Your task to perform on an android device: See recent photos Image 0: 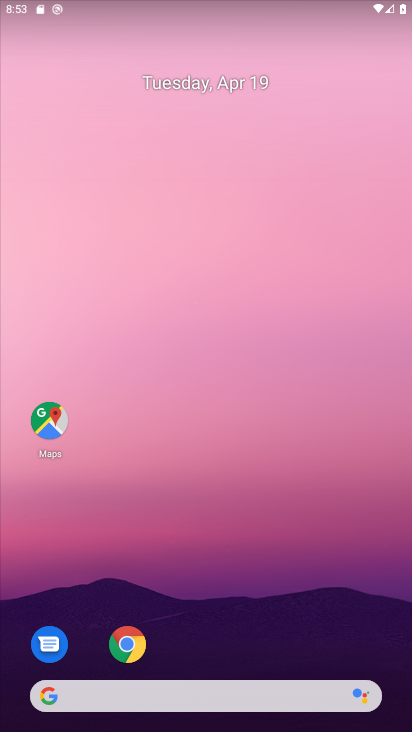
Step 0: drag from (214, 272) to (214, 124)
Your task to perform on an android device: See recent photos Image 1: 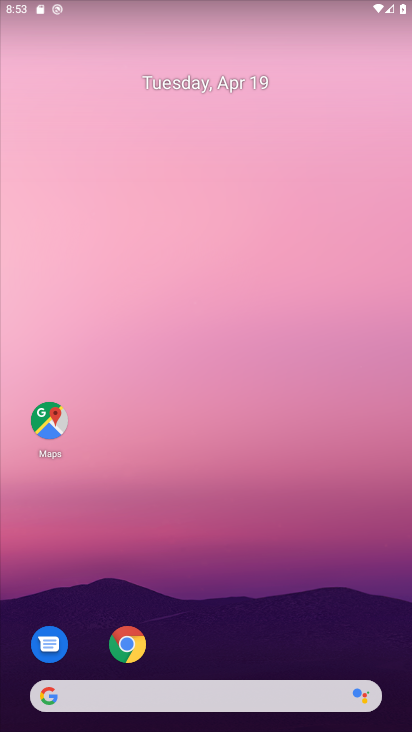
Step 1: drag from (218, 635) to (223, 180)
Your task to perform on an android device: See recent photos Image 2: 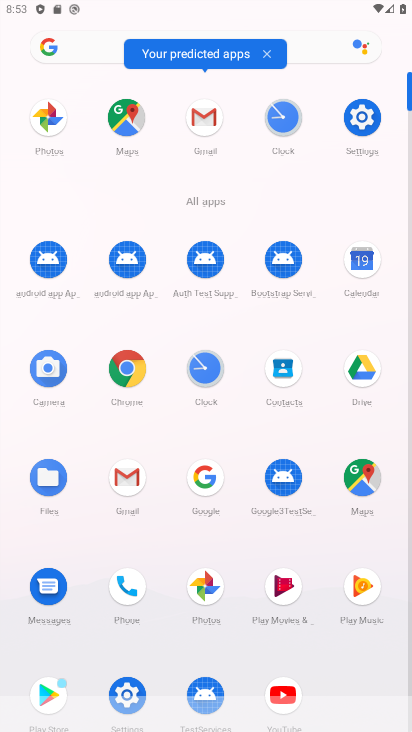
Step 2: click (56, 105)
Your task to perform on an android device: See recent photos Image 3: 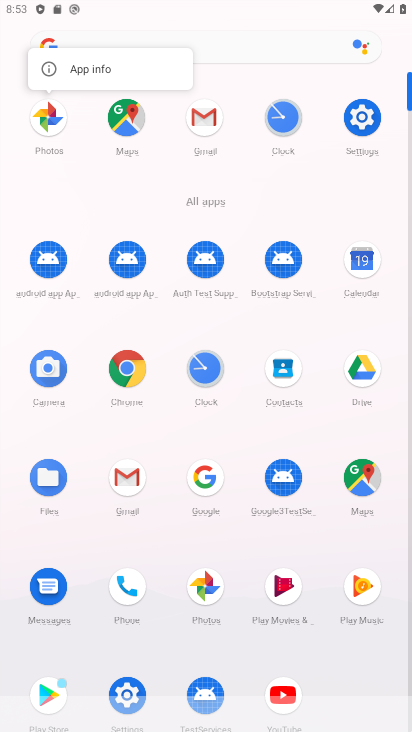
Step 3: click (53, 121)
Your task to perform on an android device: See recent photos Image 4: 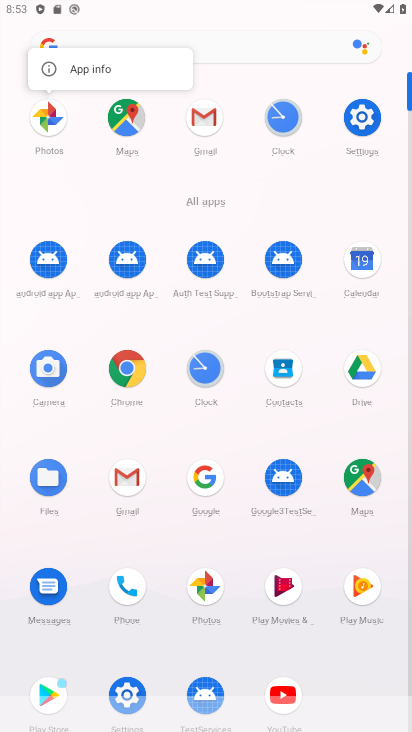
Step 4: click (53, 129)
Your task to perform on an android device: See recent photos Image 5: 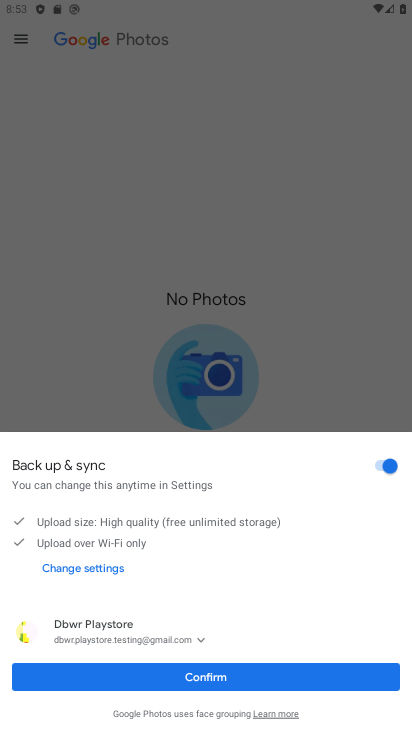
Step 5: click (217, 684)
Your task to perform on an android device: See recent photos Image 6: 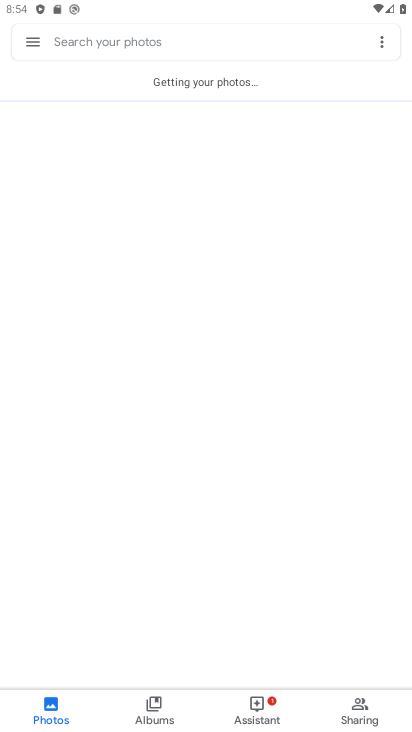
Step 6: click (34, 46)
Your task to perform on an android device: See recent photos Image 7: 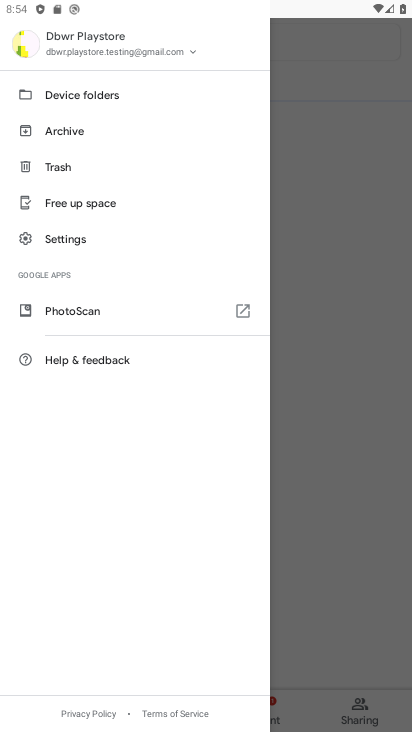
Step 7: click (300, 179)
Your task to perform on an android device: See recent photos Image 8: 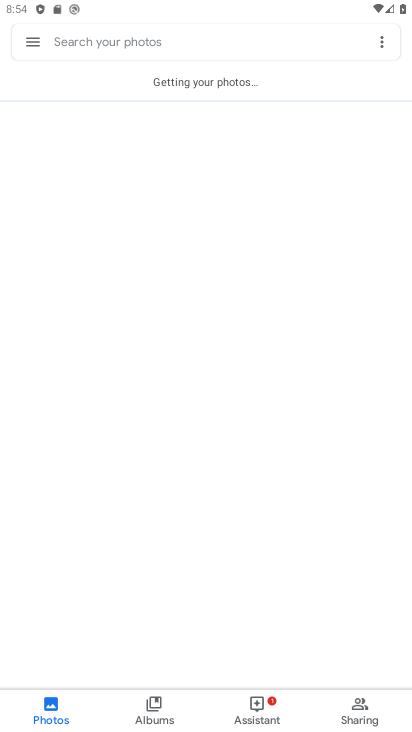
Step 8: task complete